Your task to perform on an android device: change the clock display to analog Image 0: 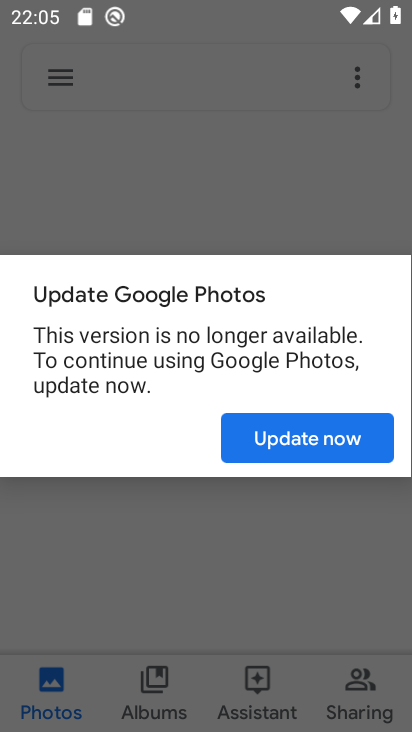
Step 0: press home button
Your task to perform on an android device: change the clock display to analog Image 1: 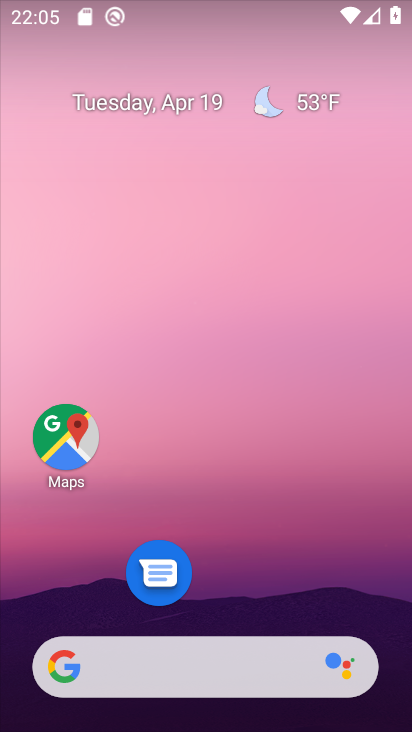
Step 1: drag from (222, 605) to (264, 69)
Your task to perform on an android device: change the clock display to analog Image 2: 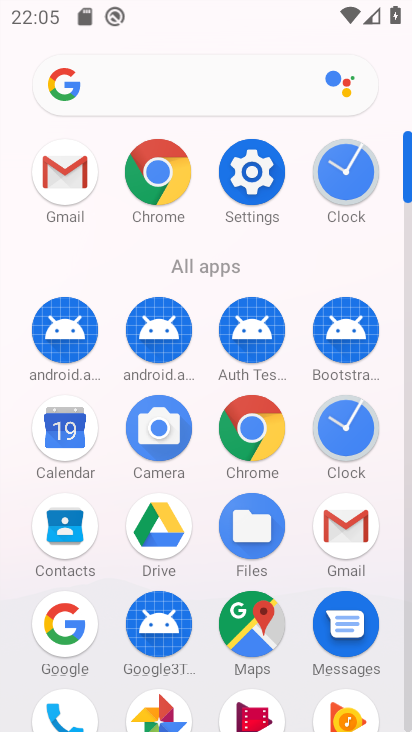
Step 2: click (344, 420)
Your task to perform on an android device: change the clock display to analog Image 3: 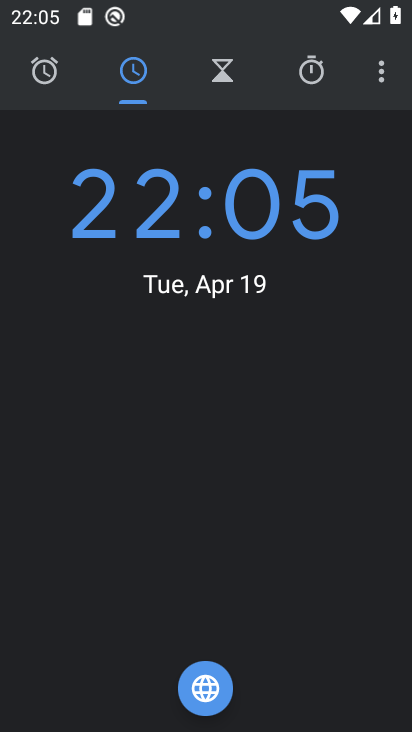
Step 3: click (383, 68)
Your task to perform on an android device: change the clock display to analog Image 4: 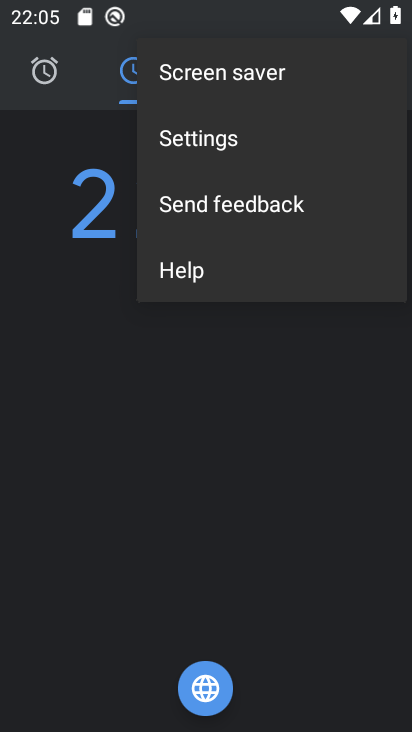
Step 4: click (249, 141)
Your task to perform on an android device: change the clock display to analog Image 5: 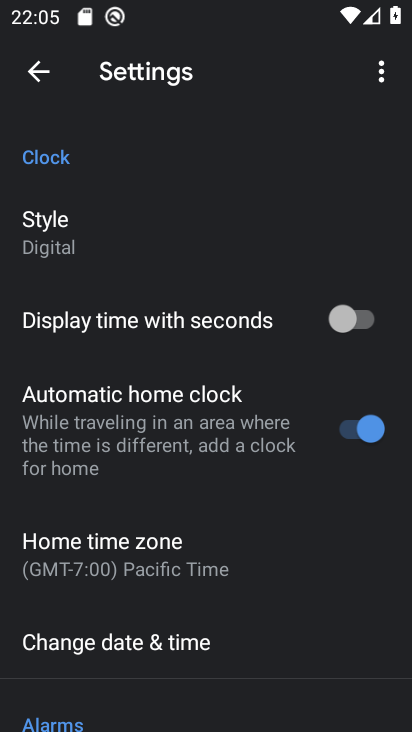
Step 5: drag from (211, 590) to (209, 483)
Your task to perform on an android device: change the clock display to analog Image 6: 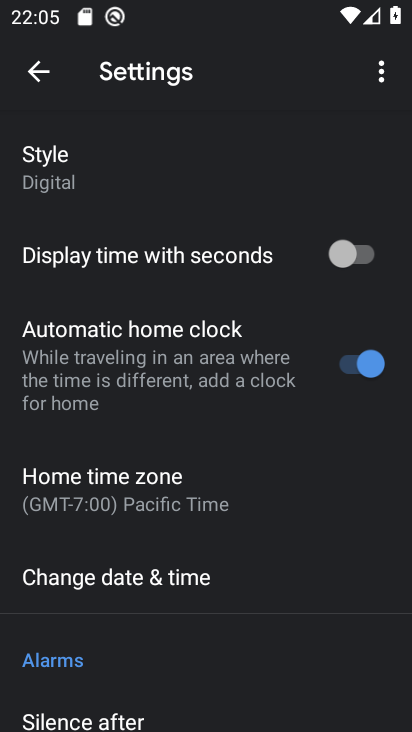
Step 6: click (90, 182)
Your task to perform on an android device: change the clock display to analog Image 7: 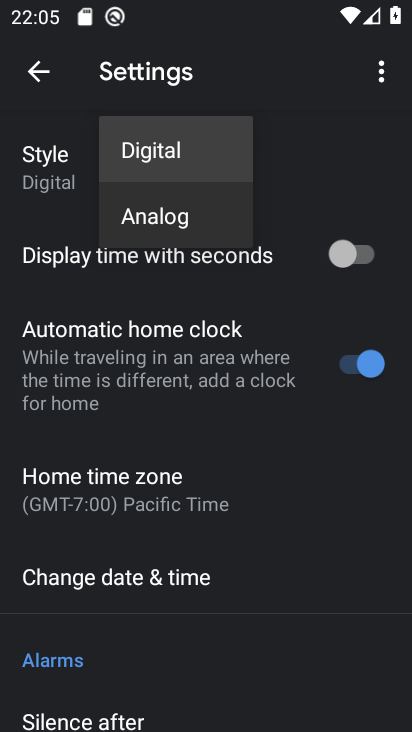
Step 7: click (172, 225)
Your task to perform on an android device: change the clock display to analog Image 8: 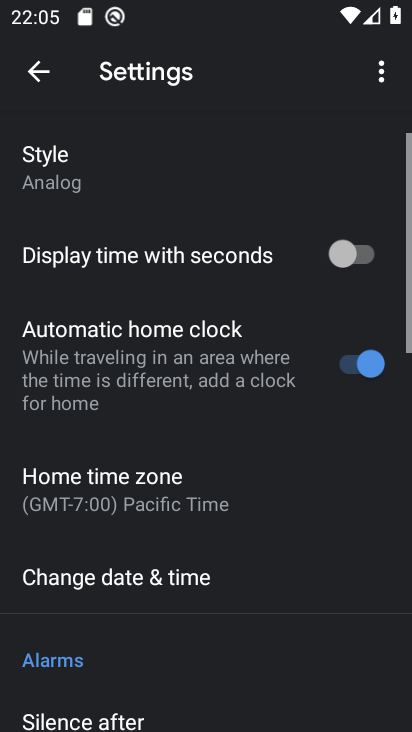
Step 8: task complete